Your task to perform on an android device: What's on my calendar today? Image 0: 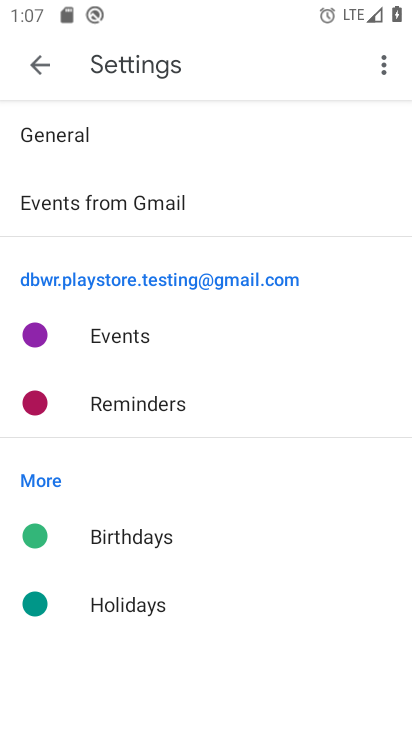
Step 0: press home button
Your task to perform on an android device: What's on my calendar today? Image 1: 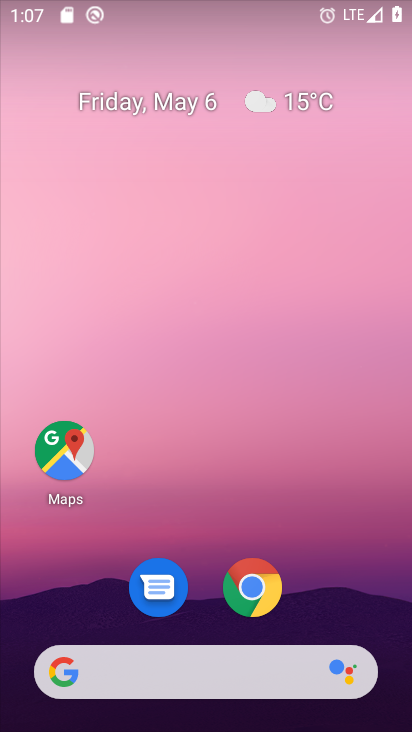
Step 1: drag from (340, 607) to (263, 78)
Your task to perform on an android device: What's on my calendar today? Image 2: 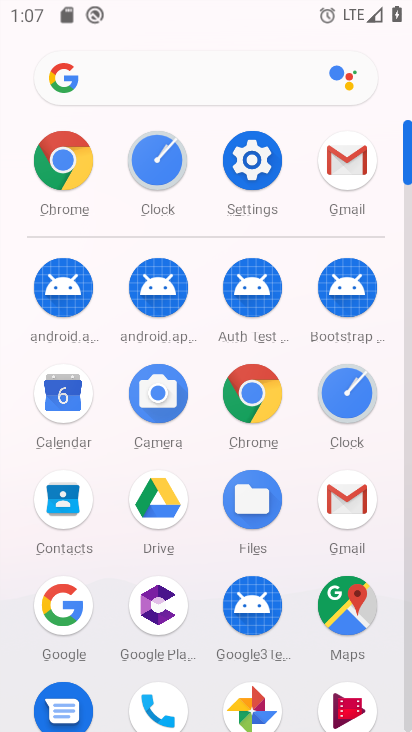
Step 2: click (64, 399)
Your task to perform on an android device: What's on my calendar today? Image 3: 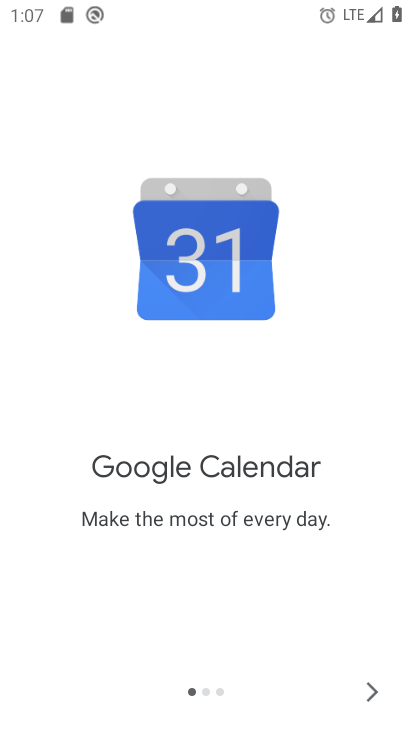
Step 3: click (380, 697)
Your task to perform on an android device: What's on my calendar today? Image 4: 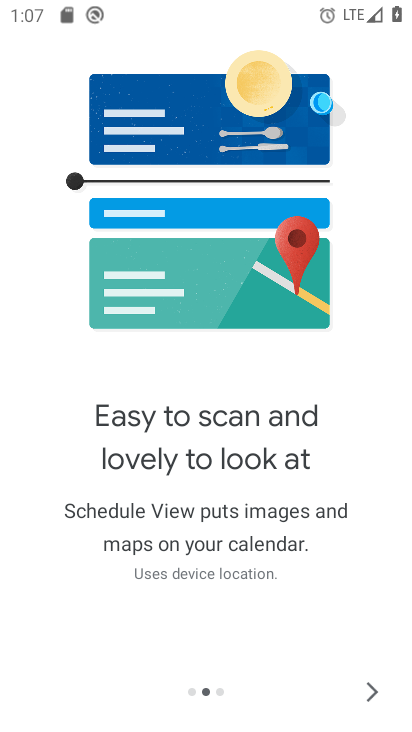
Step 4: click (377, 694)
Your task to perform on an android device: What's on my calendar today? Image 5: 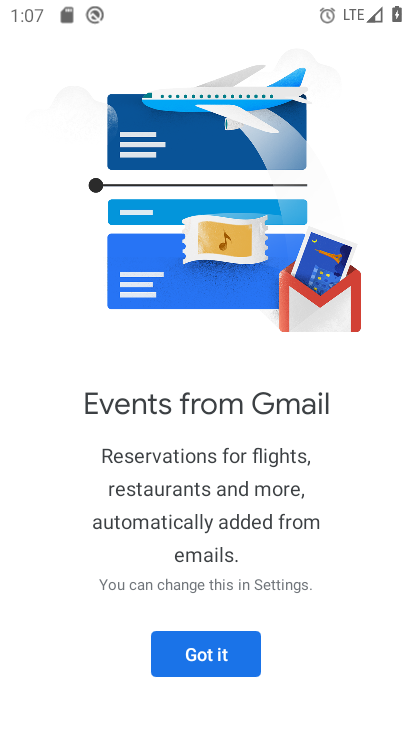
Step 5: click (232, 654)
Your task to perform on an android device: What's on my calendar today? Image 6: 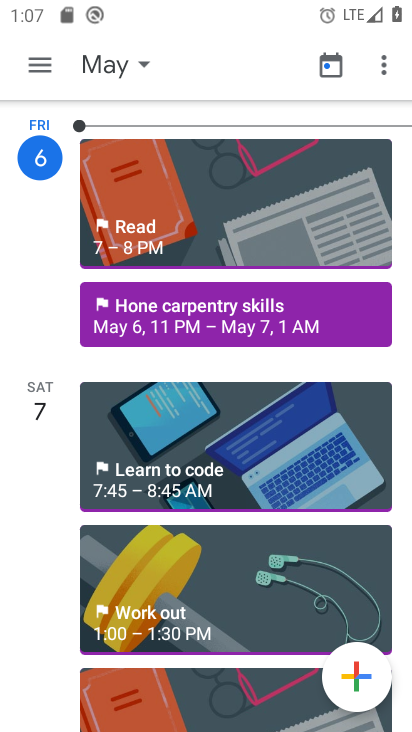
Step 6: task complete